Your task to perform on an android device: Open calendar and show me the third week of next month Image 0: 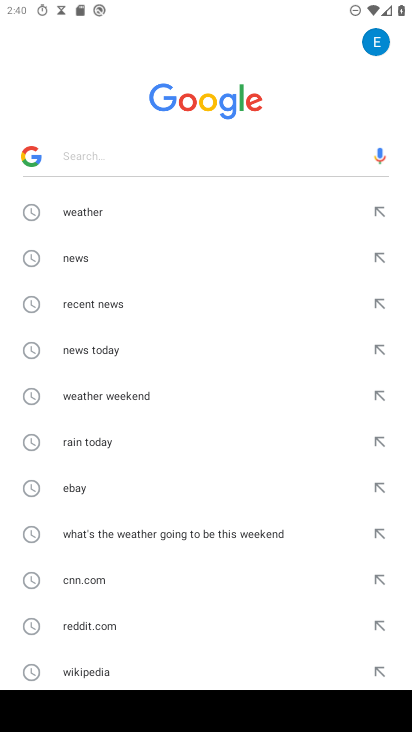
Step 0: press home button
Your task to perform on an android device: Open calendar and show me the third week of next month Image 1: 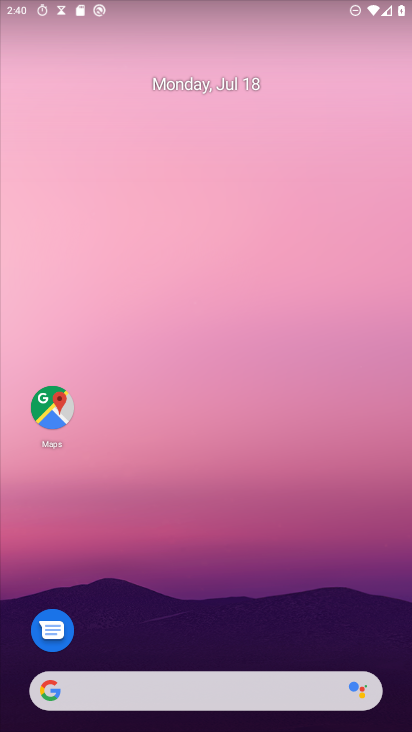
Step 1: drag from (244, 615) to (289, 94)
Your task to perform on an android device: Open calendar and show me the third week of next month Image 2: 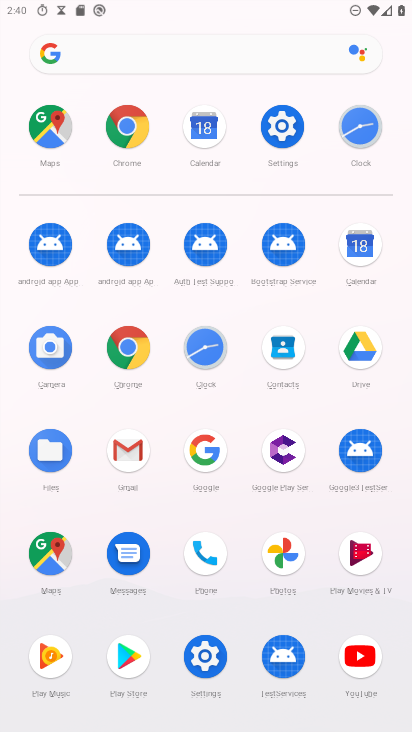
Step 2: click (356, 244)
Your task to perform on an android device: Open calendar and show me the third week of next month Image 3: 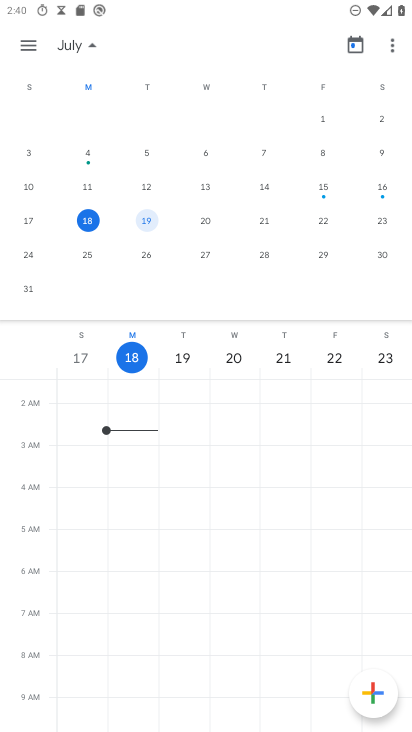
Step 3: drag from (325, 185) to (0, 213)
Your task to perform on an android device: Open calendar and show me the third week of next month Image 4: 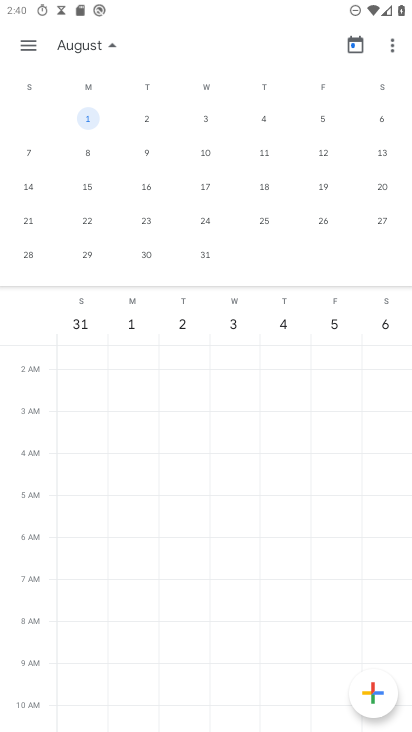
Step 4: click (208, 189)
Your task to perform on an android device: Open calendar and show me the third week of next month Image 5: 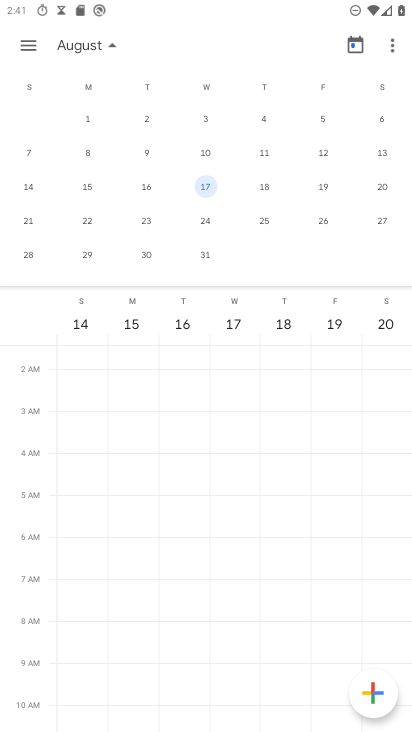
Step 5: task complete